Your task to perform on an android device: turn on the 24-hour format for clock Image 0: 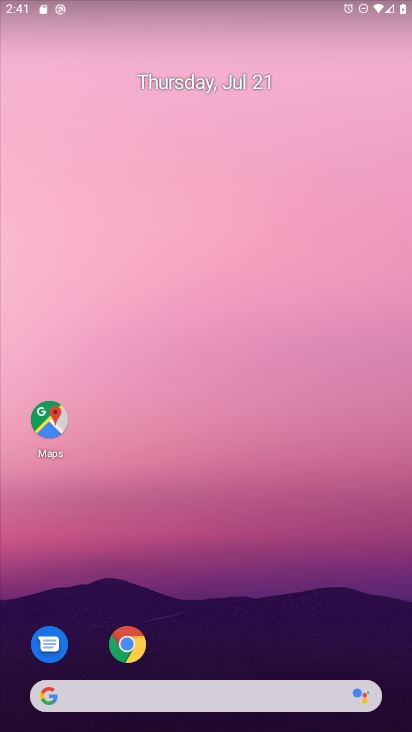
Step 0: drag from (202, 667) to (202, 141)
Your task to perform on an android device: turn on the 24-hour format for clock Image 1: 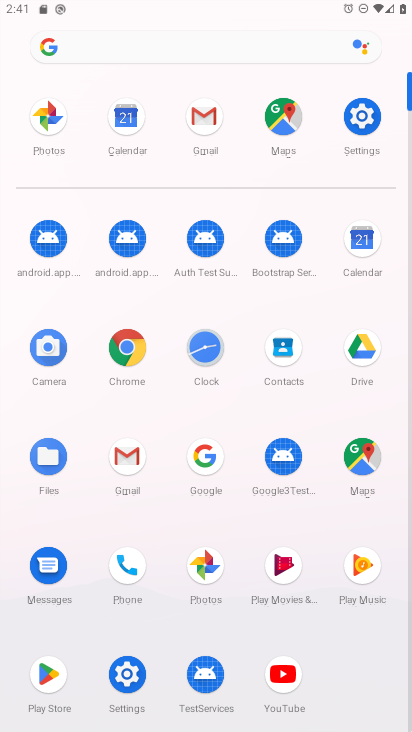
Step 1: click (205, 358)
Your task to perform on an android device: turn on the 24-hour format for clock Image 2: 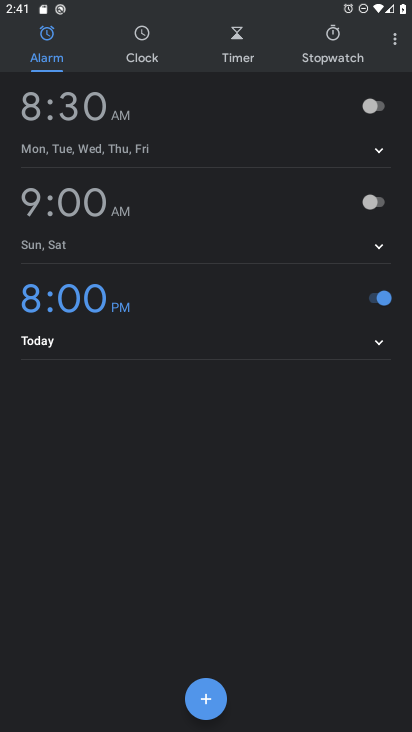
Step 2: click (393, 45)
Your task to perform on an android device: turn on the 24-hour format for clock Image 3: 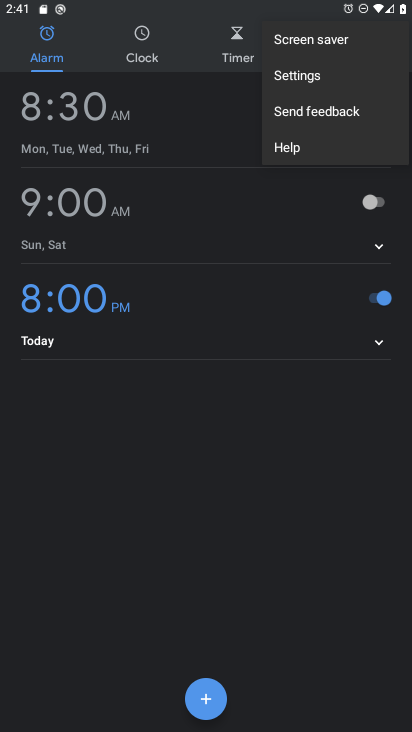
Step 3: click (294, 84)
Your task to perform on an android device: turn on the 24-hour format for clock Image 4: 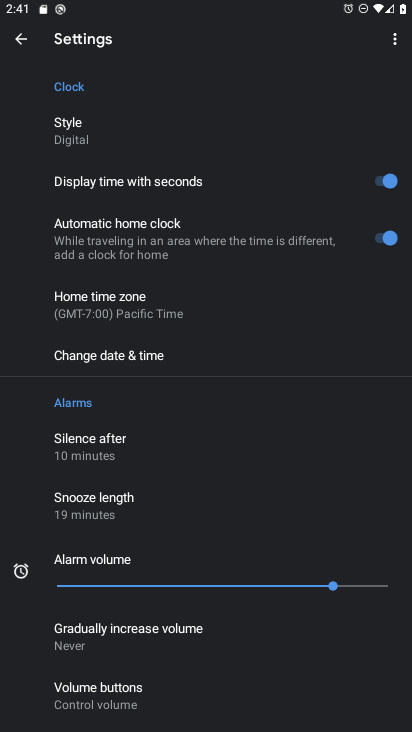
Step 4: click (124, 352)
Your task to perform on an android device: turn on the 24-hour format for clock Image 5: 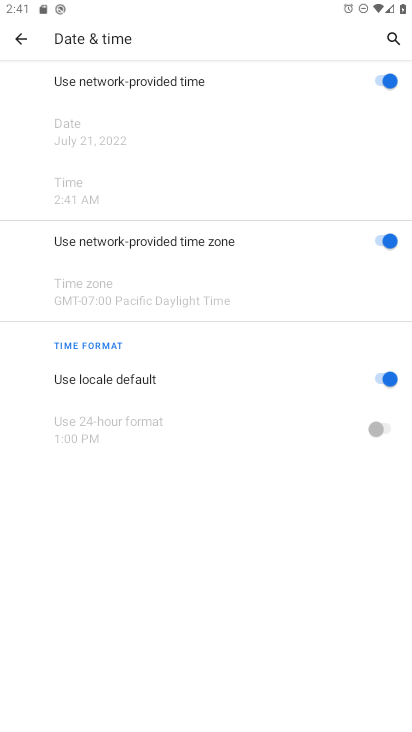
Step 5: click (377, 379)
Your task to perform on an android device: turn on the 24-hour format for clock Image 6: 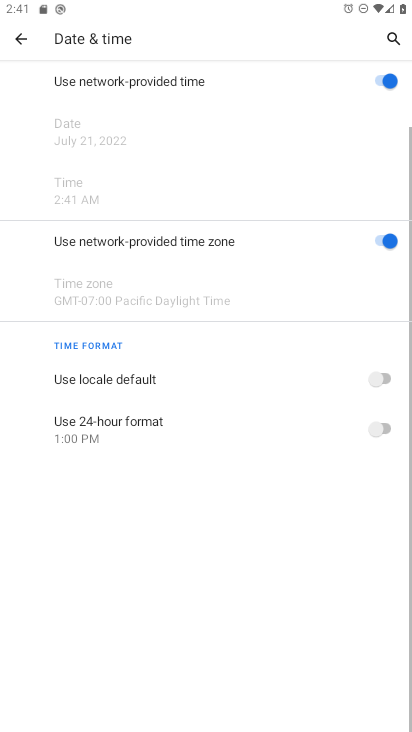
Step 6: click (382, 425)
Your task to perform on an android device: turn on the 24-hour format for clock Image 7: 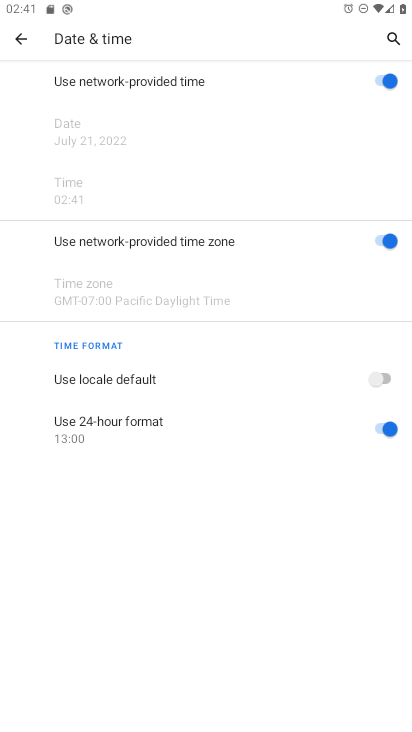
Step 7: task complete